Your task to perform on an android device: Open Google Maps Image 0: 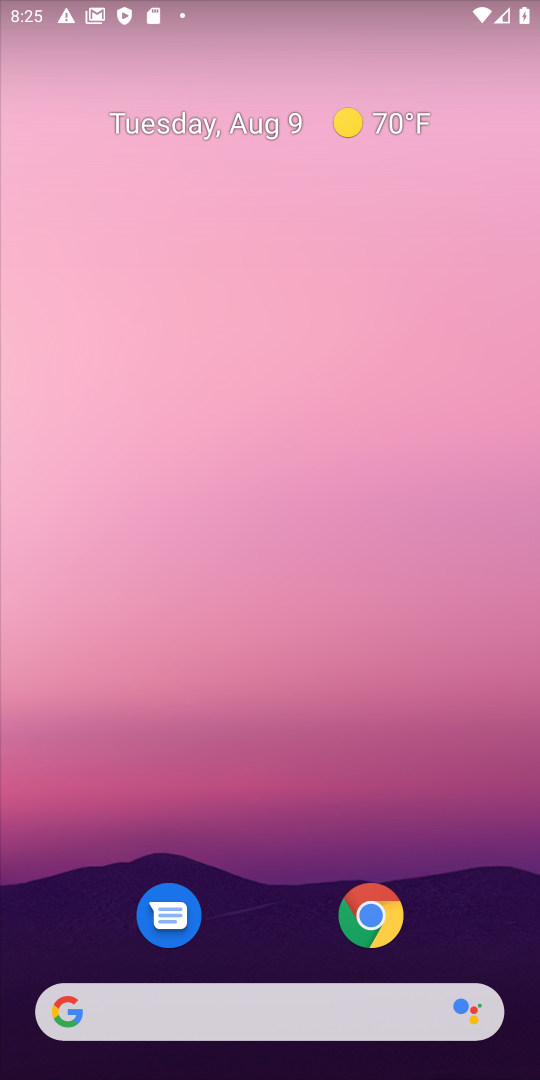
Step 0: drag from (237, 932) to (211, 13)
Your task to perform on an android device: Open Google Maps Image 1: 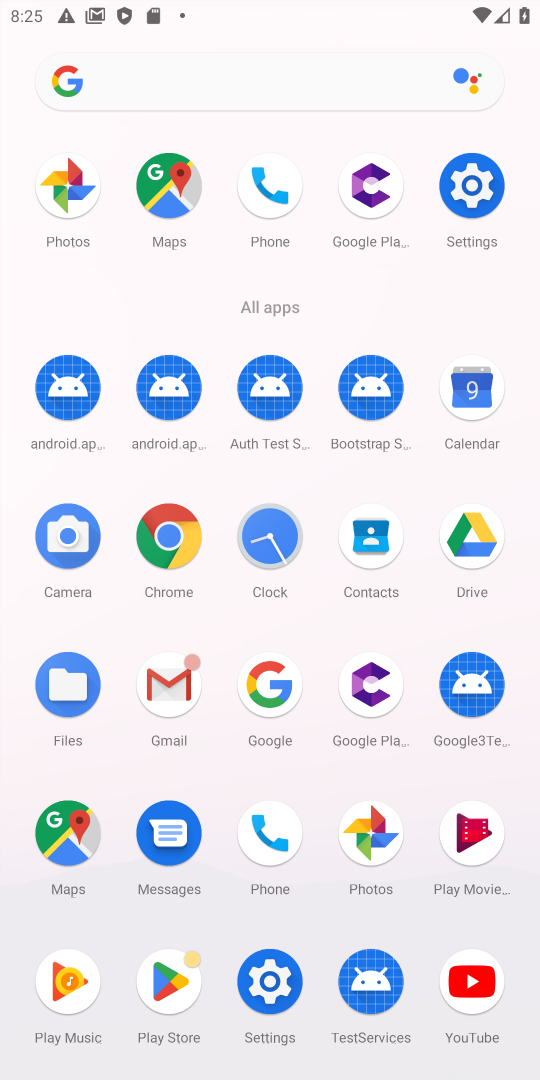
Step 1: click (159, 188)
Your task to perform on an android device: Open Google Maps Image 2: 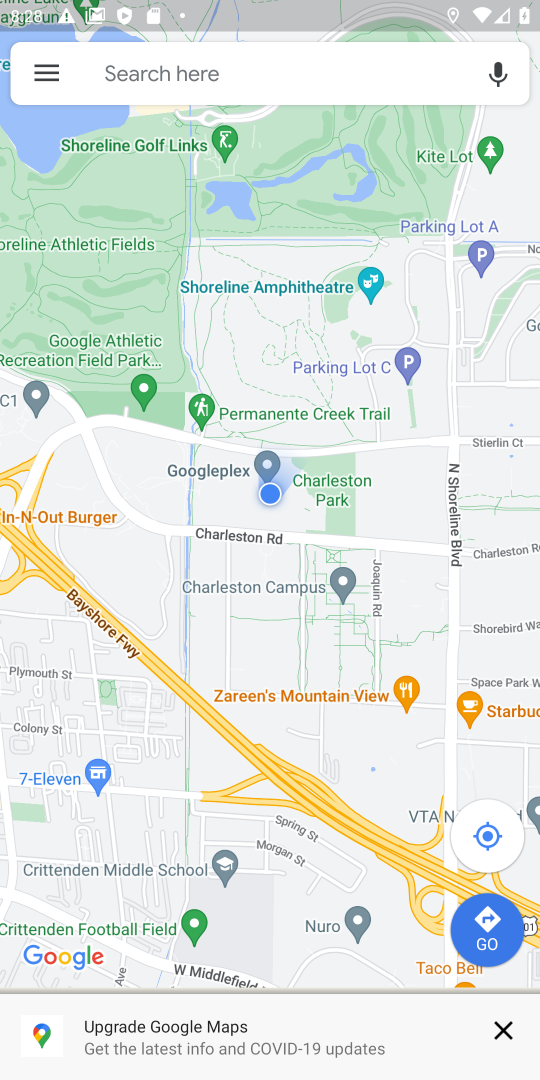
Step 2: task complete